Your task to perform on an android device: Open display settings Image 0: 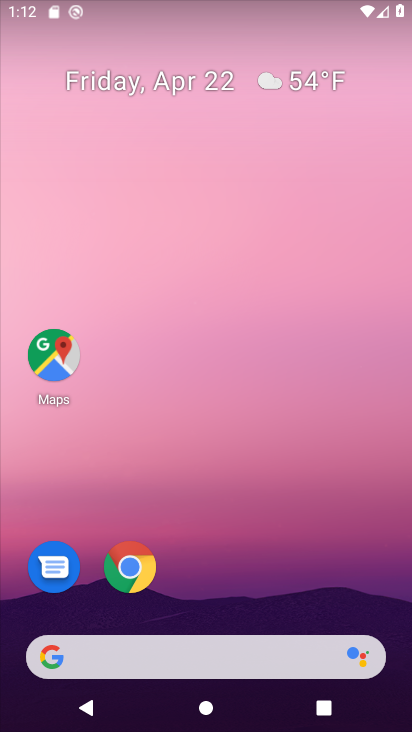
Step 0: drag from (304, 569) to (328, 83)
Your task to perform on an android device: Open display settings Image 1: 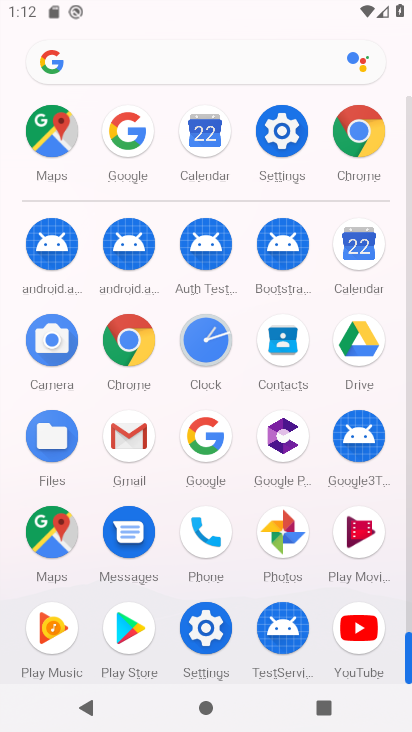
Step 1: click (287, 158)
Your task to perform on an android device: Open display settings Image 2: 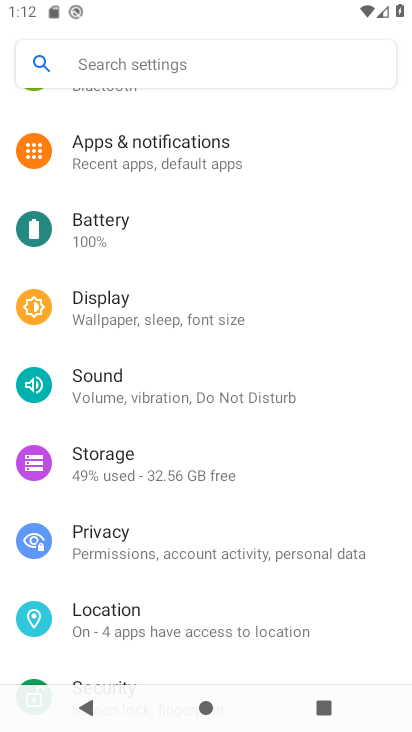
Step 2: click (199, 311)
Your task to perform on an android device: Open display settings Image 3: 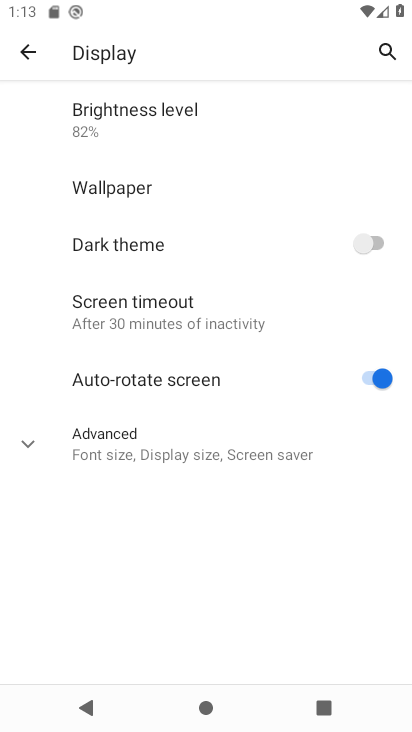
Step 3: click (182, 447)
Your task to perform on an android device: Open display settings Image 4: 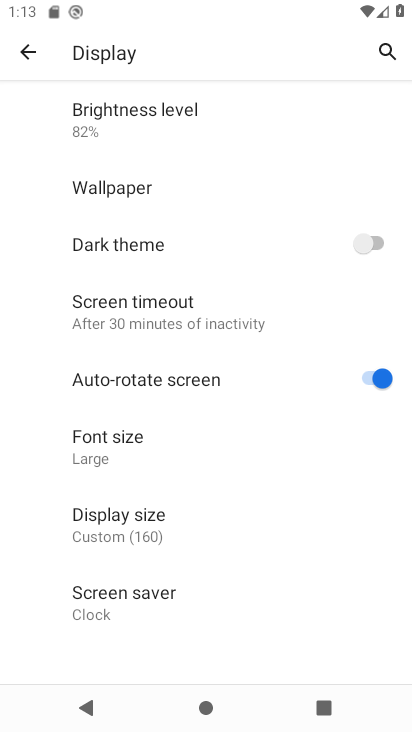
Step 4: task complete